Your task to perform on an android device: move an email to a new category in the gmail app Image 0: 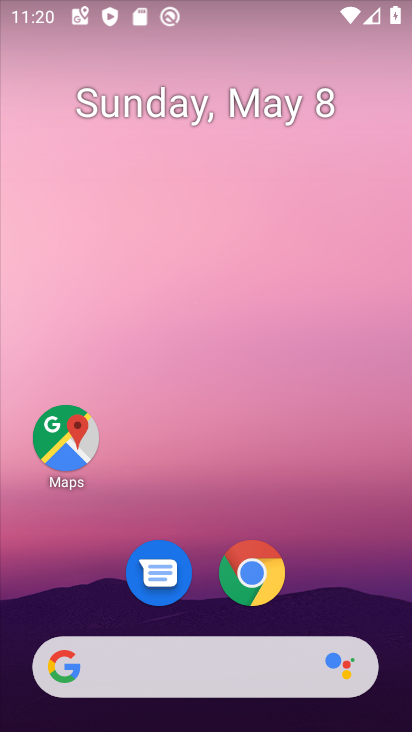
Step 0: drag from (346, 597) to (296, 18)
Your task to perform on an android device: move an email to a new category in the gmail app Image 1: 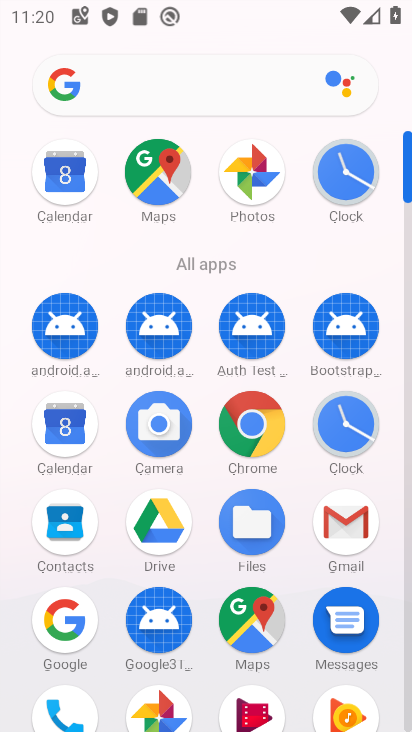
Step 1: drag from (7, 531) to (14, 123)
Your task to perform on an android device: move an email to a new category in the gmail app Image 2: 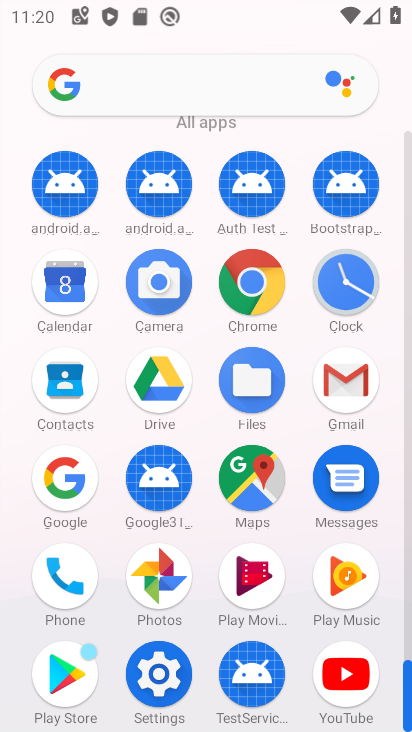
Step 2: drag from (23, 566) to (19, 215)
Your task to perform on an android device: move an email to a new category in the gmail app Image 3: 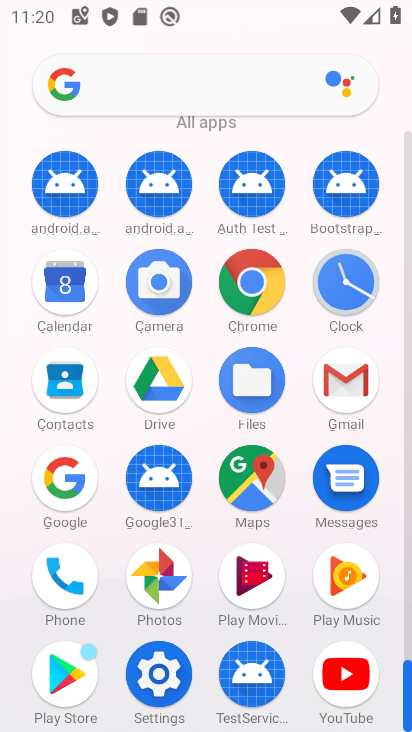
Step 3: drag from (14, 541) to (27, 216)
Your task to perform on an android device: move an email to a new category in the gmail app Image 4: 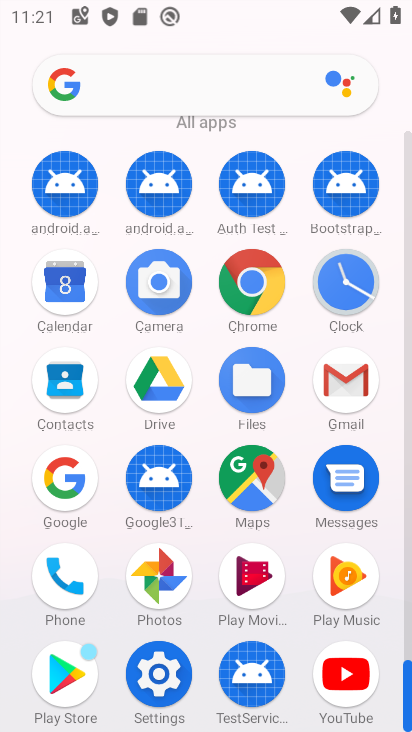
Step 4: click (341, 372)
Your task to perform on an android device: move an email to a new category in the gmail app Image 5: 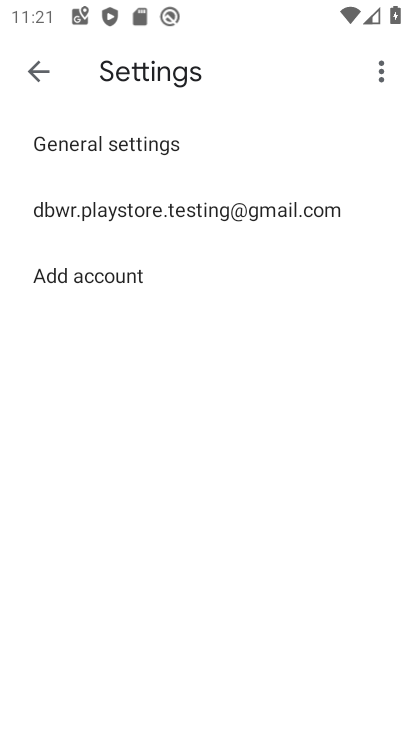
Step 5: click (41, 76)
Your task to perform on an android device: move an email to a new category in the gmail app Image 6: 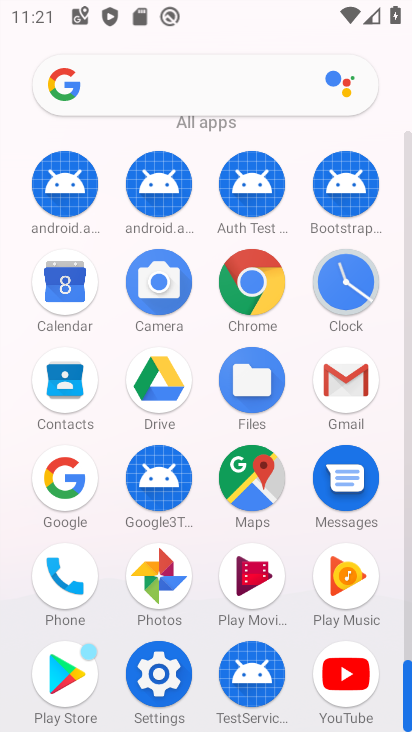
Step 6: click (350, 372)
Your task to perform on an android device: move an email to a new category in the gmail app Image 7: 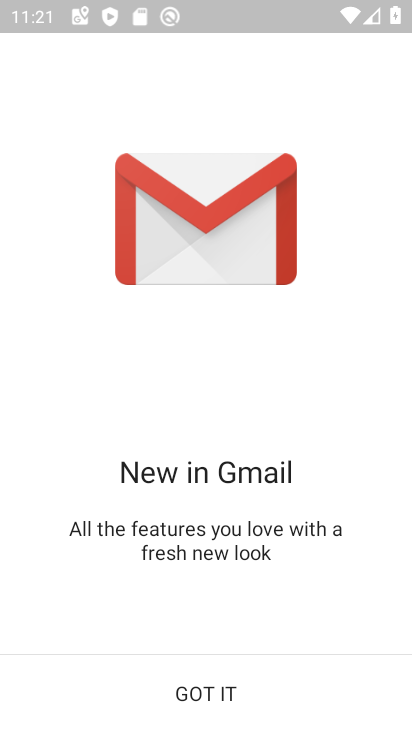
Step 7: click (220, 690)
Your task to perform on an android device: move an email to a new category in the gmail app Image 8: 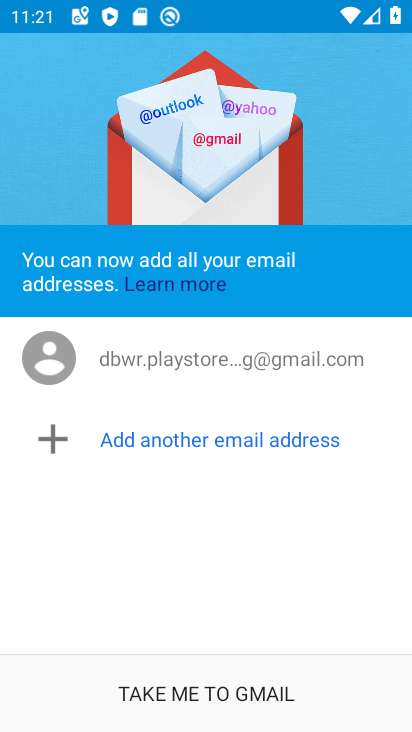
Step 8: click (218, 685)
Your task to perform on an android device: move an email to a new category in the gmail app Image 9: 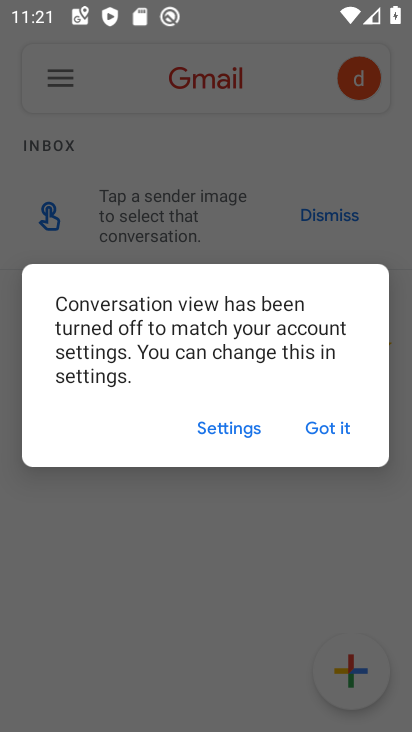
Step 9: click (314, 424)
Your task to perform on an android device: move an email to a new category in the gmail app Image 10: 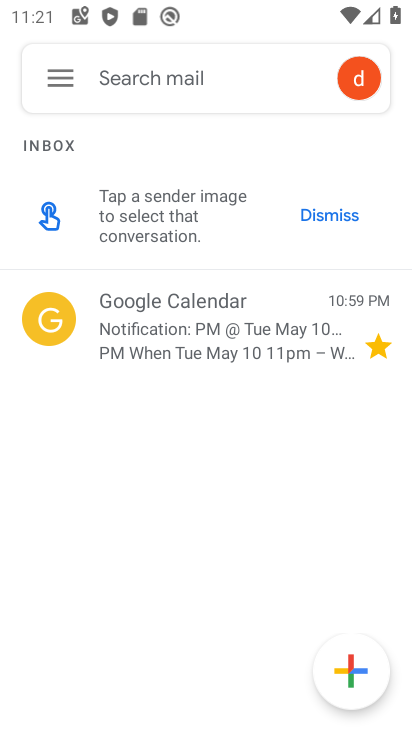
Step 10: click (209, 302)
Your task to perform on an android device: move an email to a new category in the gmail app Image 11: 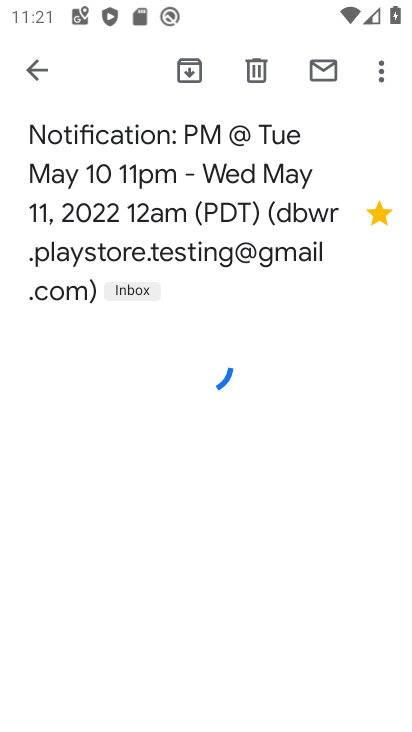
Step 11: click (146, 289)
Your task to perform on an android device: move an email to a new category in the gmail app Image 12: 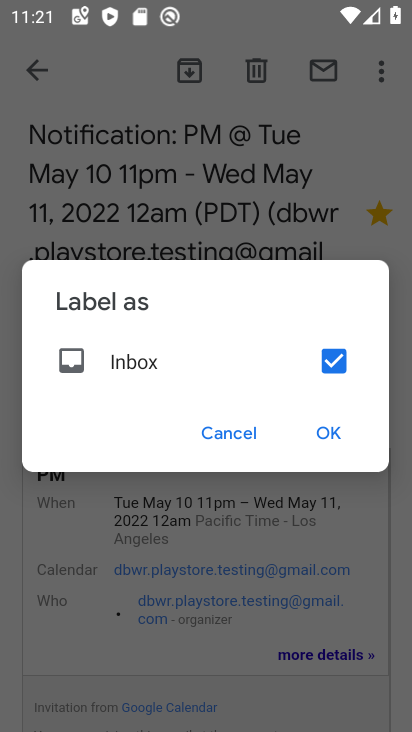
Step 12: click (332, 353)
Your task to perform on an android device: move an email to a new category in the gmail app Image 13: 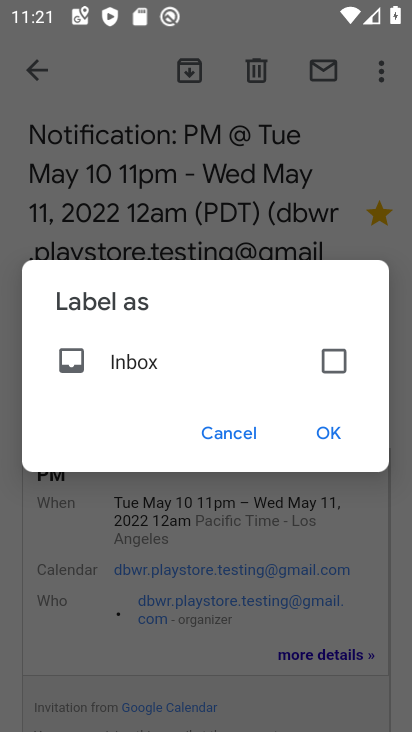
Step 13: click (327, 434)
Your task to perform on an android device: move an email to a new category in the gmail app Image 14: 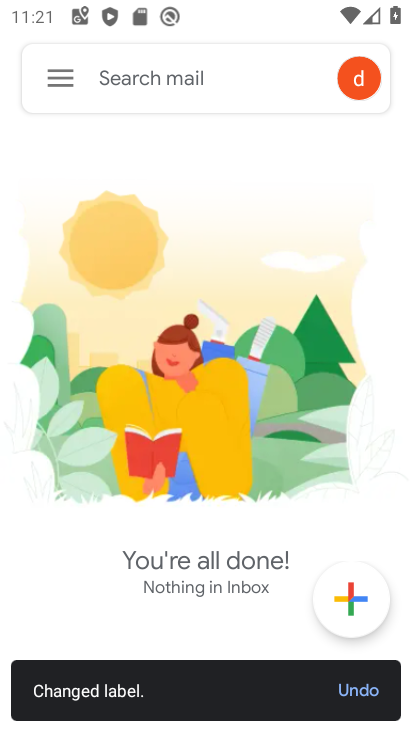
Step 14: task complete